Your task to perform on an android device: Search for the best rated 3d printer on Amazon. Image 0: 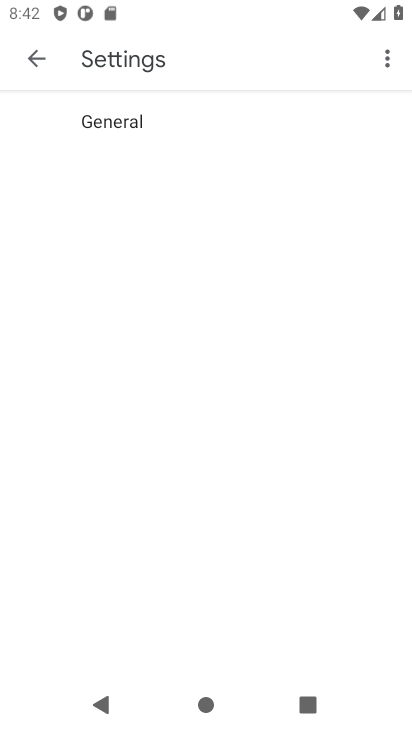
Step 0: press home button
Your task to perform on an android device: Search for the best rated 3d printer on Amazon. Image 1: 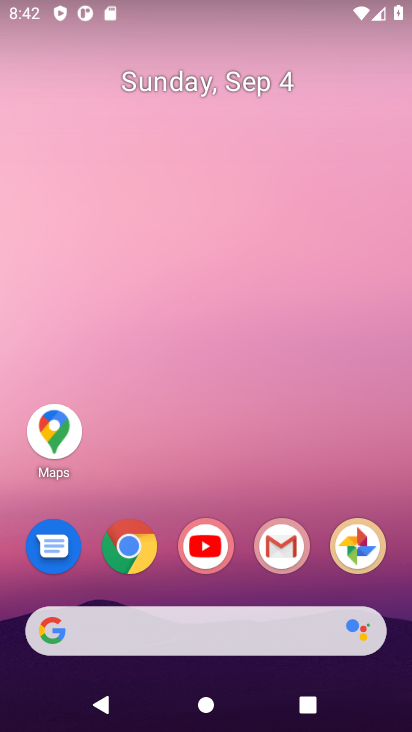
Step 1: click (128, 551)
Your task to perform on an android device: Search for the best rated 3d printer on Amazon. Image 2: 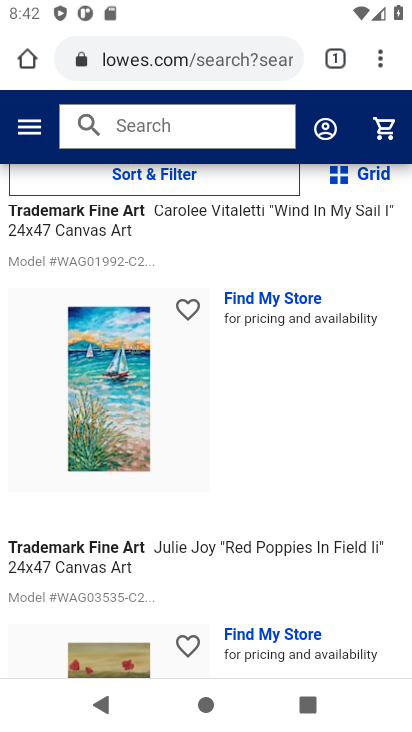
Step 2: click (155, 70)
Your task to perform on an android device: Search for the best rated 3d printer on Amazon. Image 3: 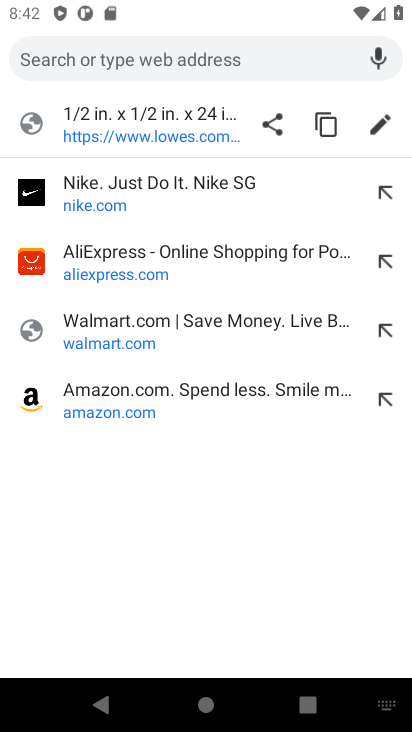
Step 3: click (70, 409)
Your task to perform on an android device: Search for the best rated 3d printer on Amazon. Image 4: 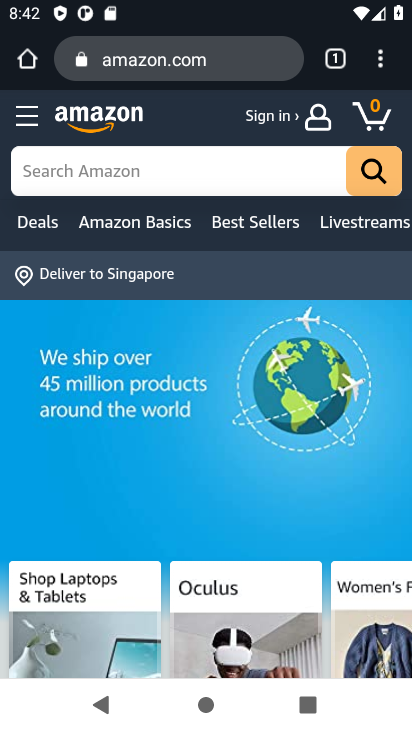
Step 4: click (141, 175)
Your task to perform on an android device: Search for the best rated 3d printer on Amazon. Image 5: 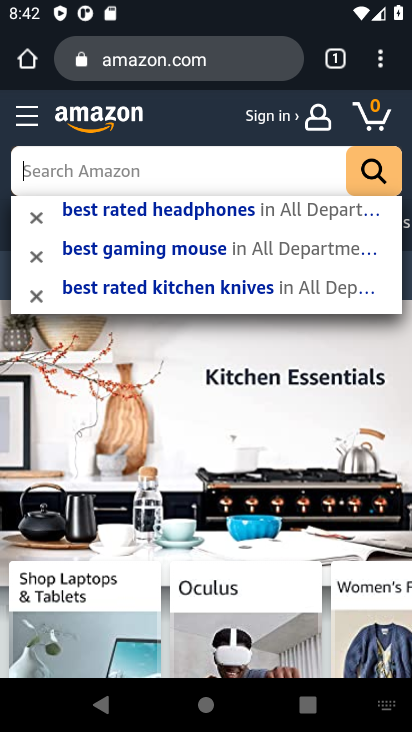
Step 5: type "best rated 3d printer"
Your task to perform on an android device: Search for the best rated 3d printer on Amazon. Image 6: 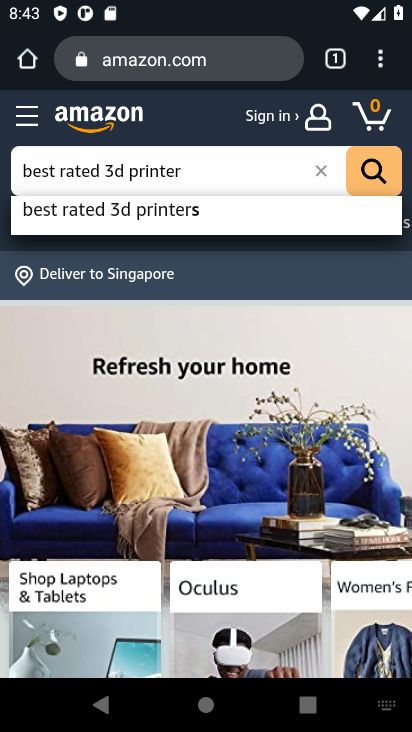
Step 6: click (366, 173)
Your task to perform on an android device: Search for the best rated 3d printer on Amazon. Image 7: 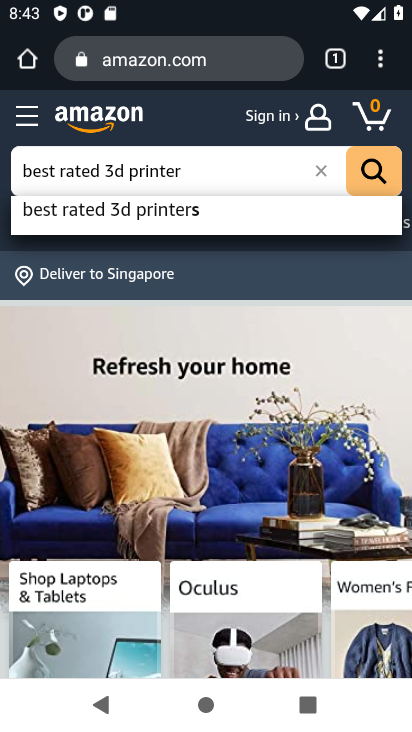
Step 7: click (126, 215)
Your task to perform on an android device: Search for the best rated 3d printer on Amazon. Image 8: 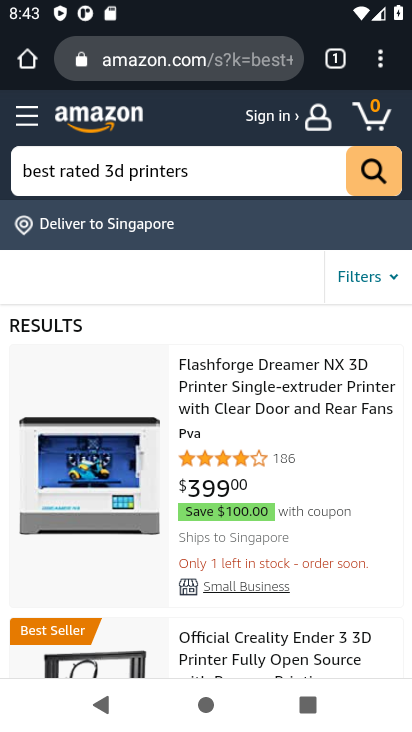
Step 8: task complete